Your task to perform on an android device: Open Chrome and go to the settings page Image 0: 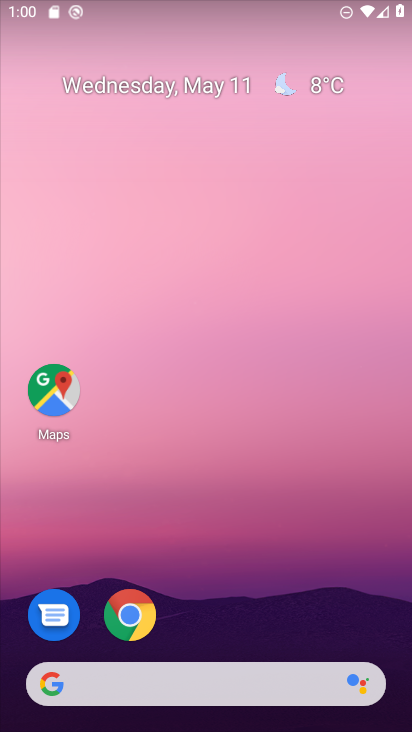
Step 0: drag from (305, 542) to (320, 132)
Your task to perform on an android device: Open Chrome and go to the settings page Image 1: 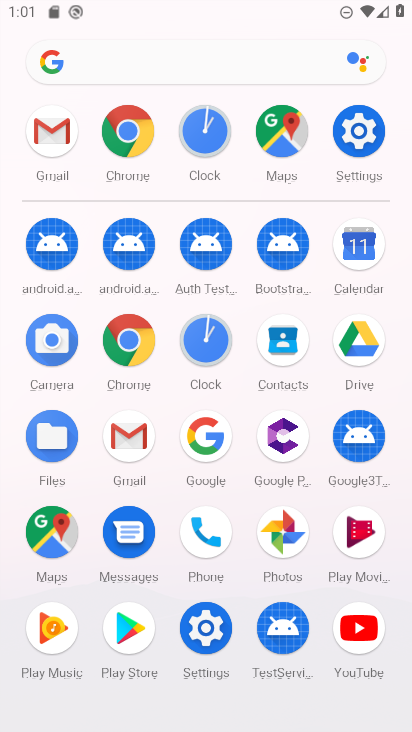
Step 1: click (109, 122)
Your task to perform on an android device: Open Chrome and go to the settings page Image 2: 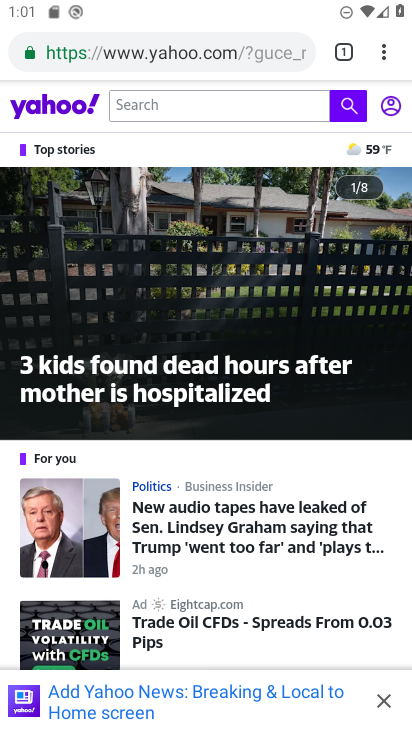
Step 2: task complete